Your task to perform on an android device: open device folders in google photos Image 0: 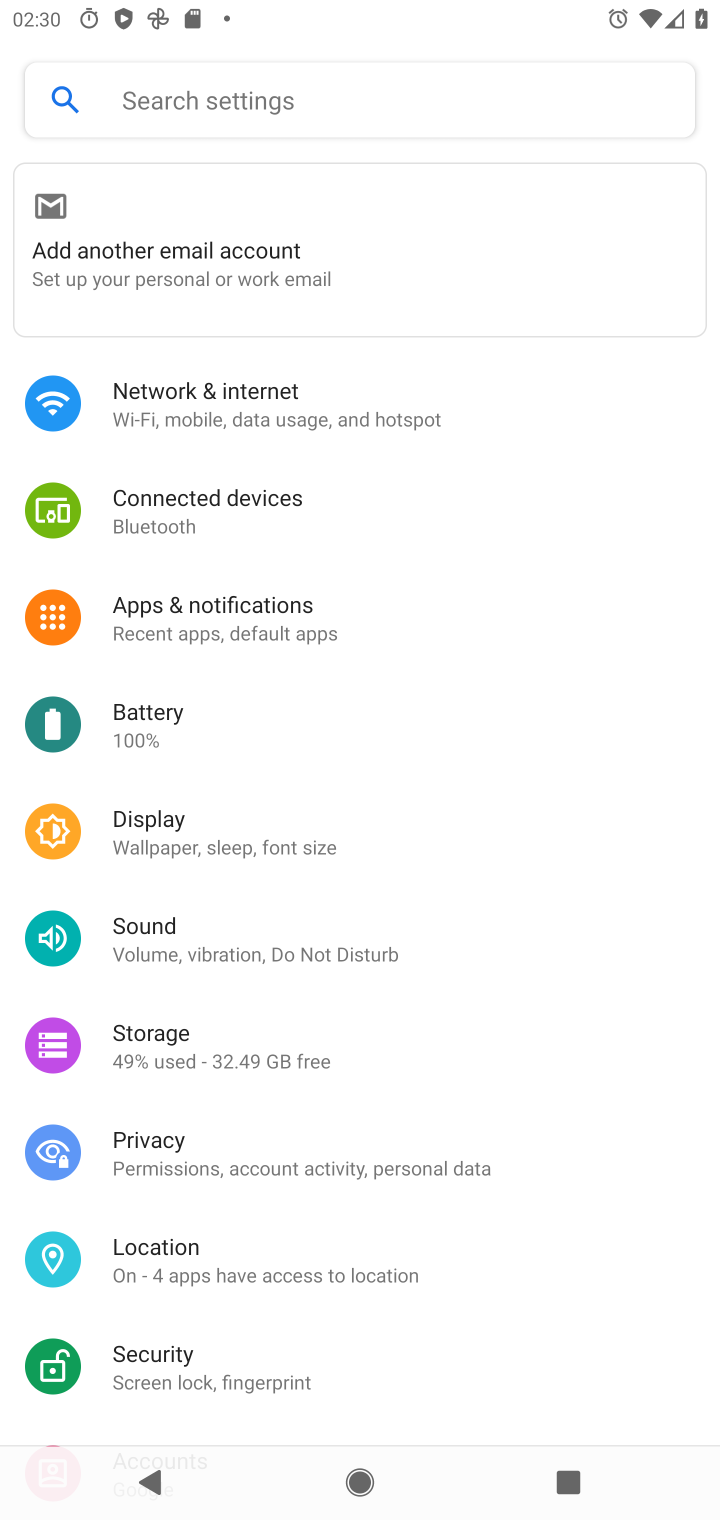
Step 0: press home button
Your task to perform on an android device: open device folders in google photos Image 1: 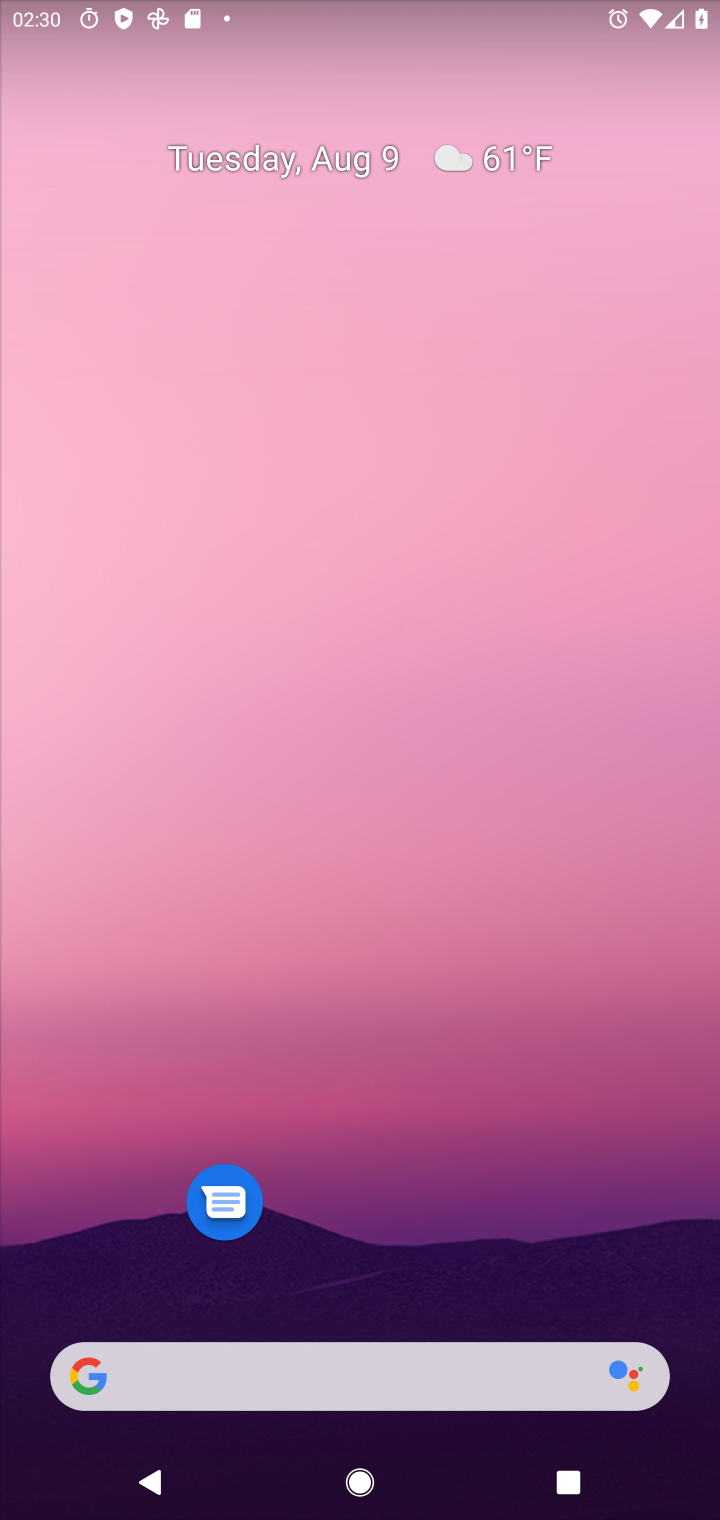
Step 1: drag from (251, 1360) to (360, 43)
Your task to perform on an android device: open device folders in google photos Image 2: 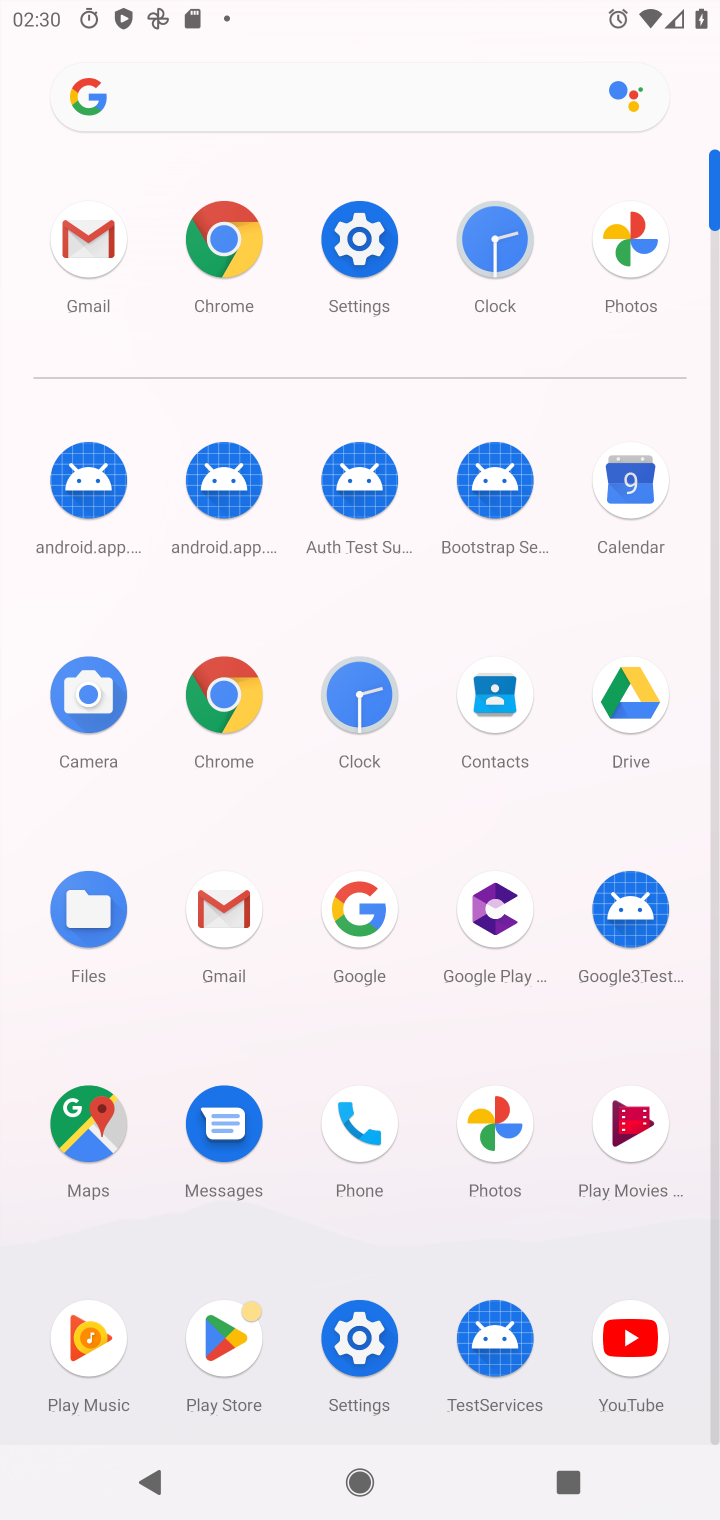
Step 2: click (476, 1156)
Your task to perform on an android device: open device folders in google photos Image 3: 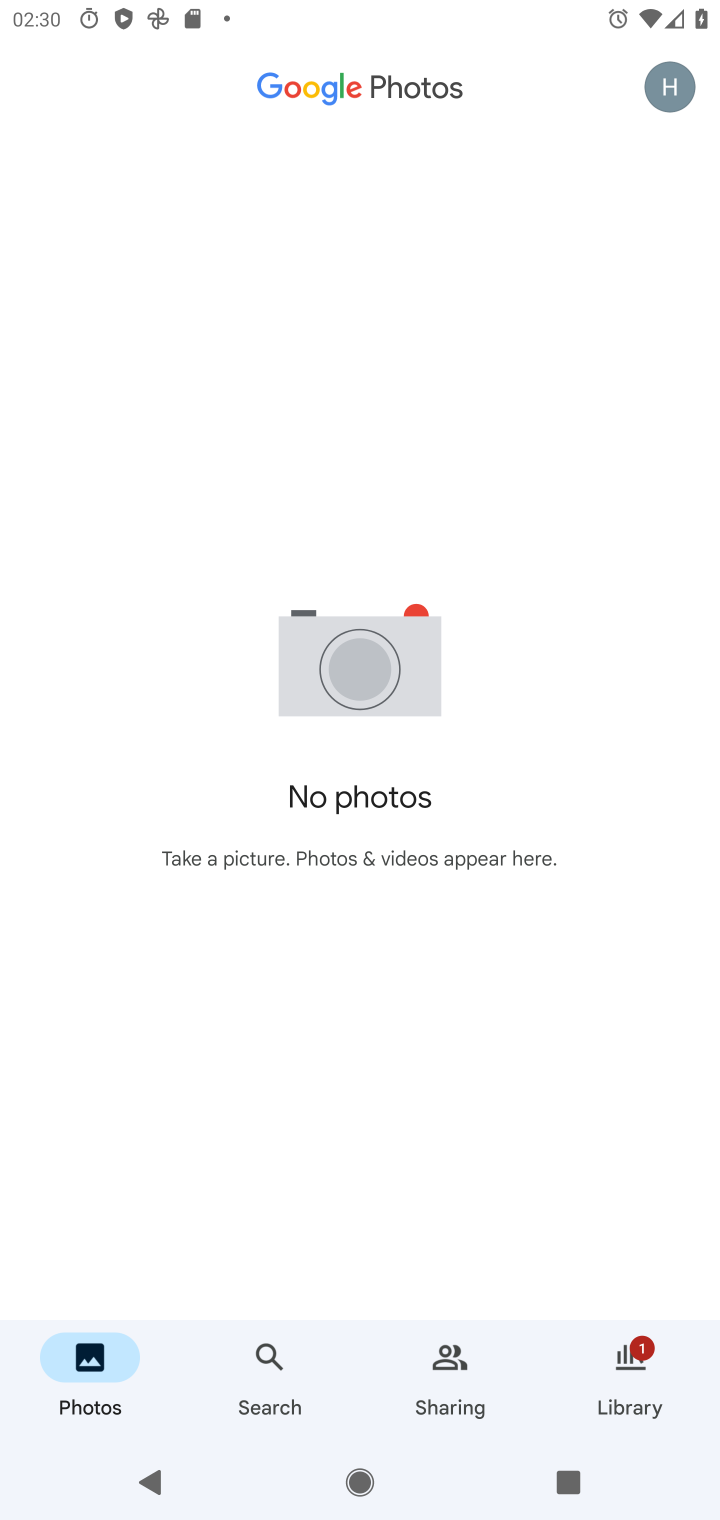
Step 3: click (650, 93)
Your task to perform on an android device: open device folders in google photos Image 4: 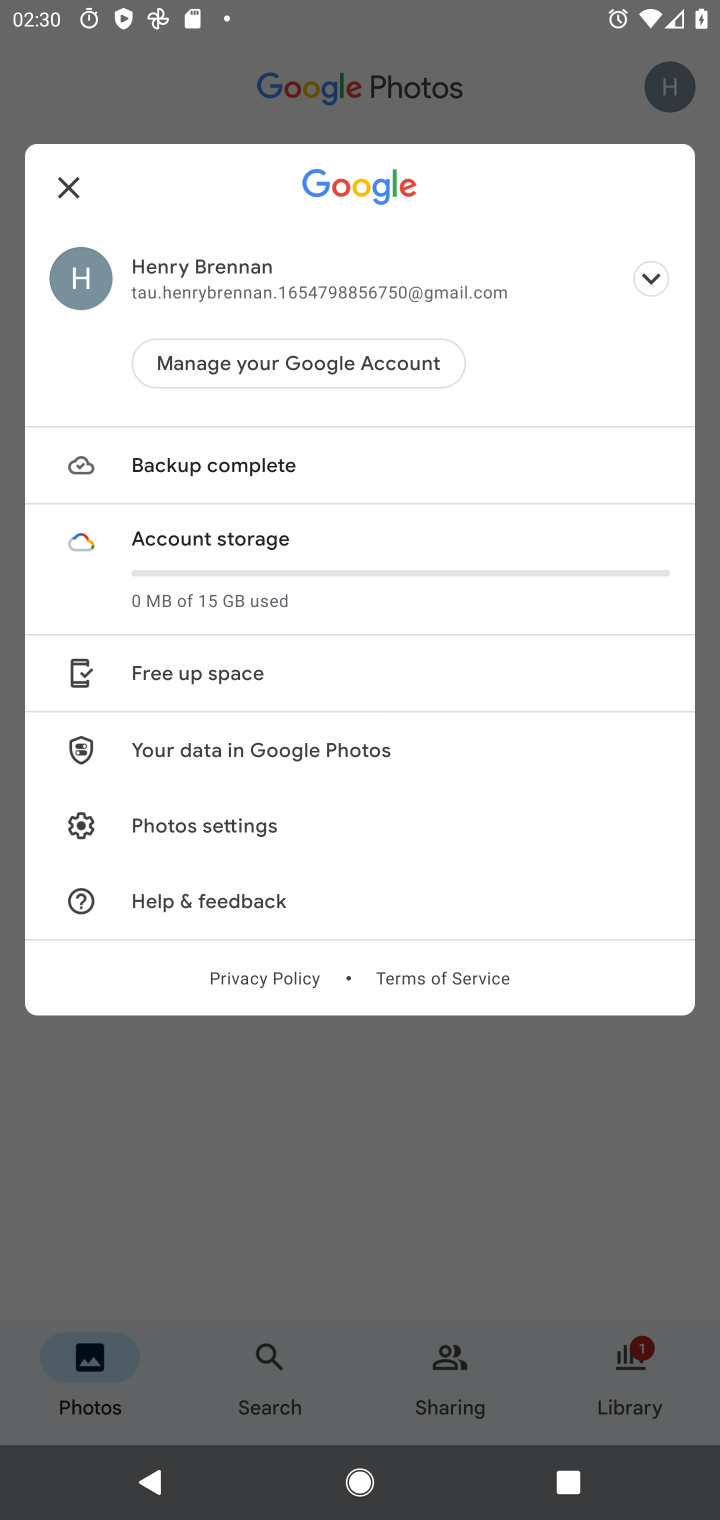
Step 4: click (492, 1265)
Your task to perform on an android device: open device folders in google photos Image 5: 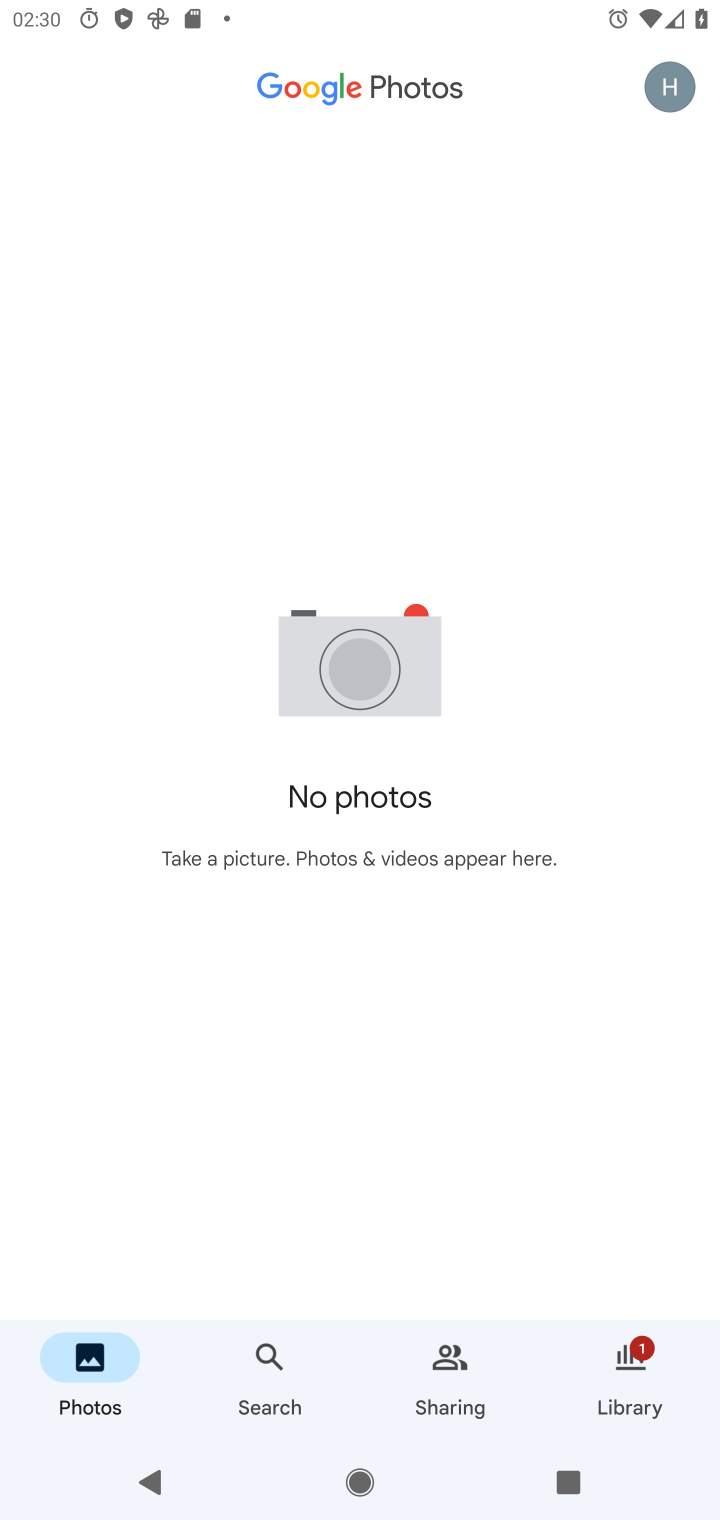
Step 5: click (618, 1357)
Your task to perform on an android device: open device folders in google photos Image 6: 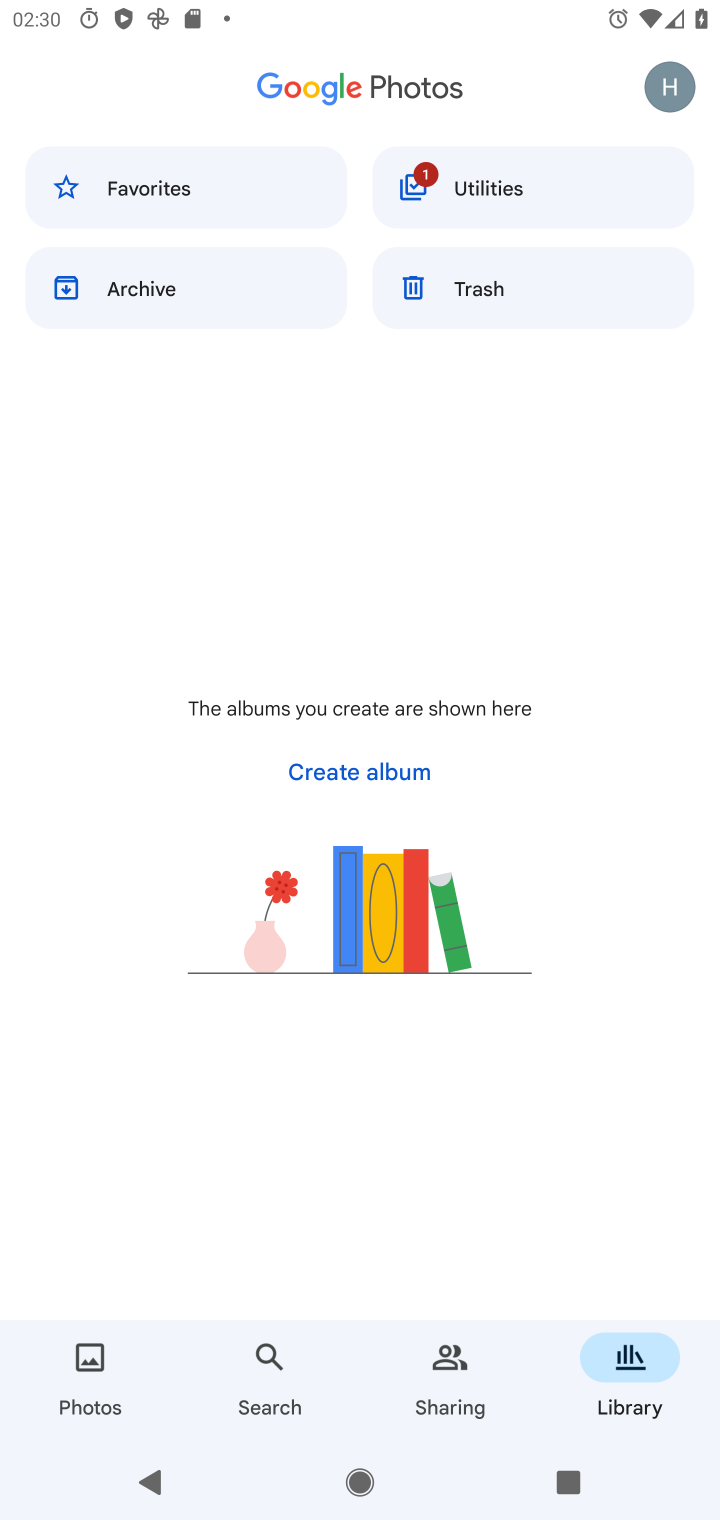
Step 6: task complete